Your task to perform on an android device: Open battery settings Image 0: 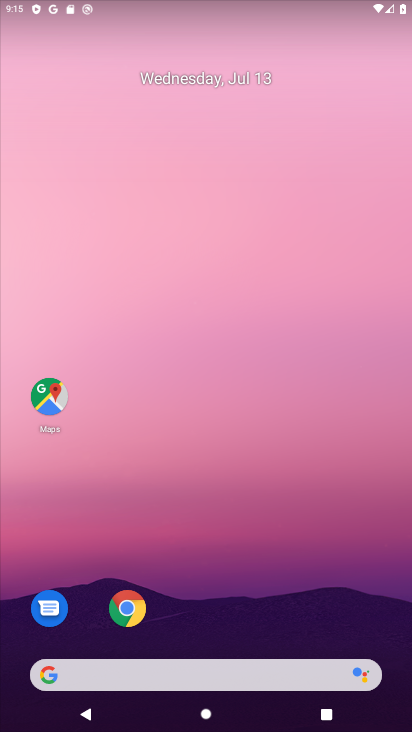
Step 0: drag from (348, 666) to (206, 14)
Your task to perform on an android device: Open battery settings Image 1: 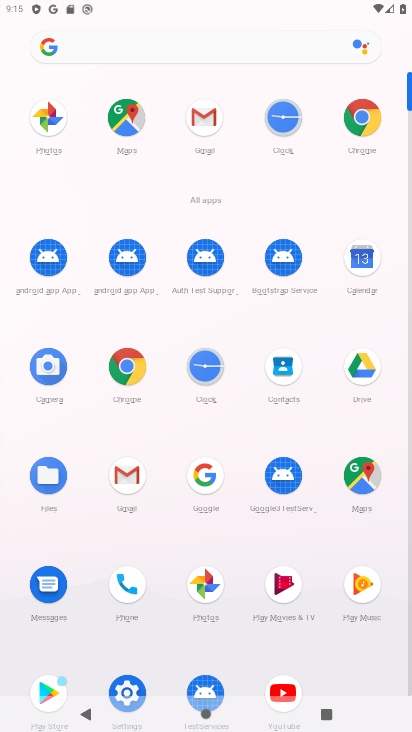
Step 1: click (122, 687)
Your task to perform on an android device: Open battery settings Image 2: 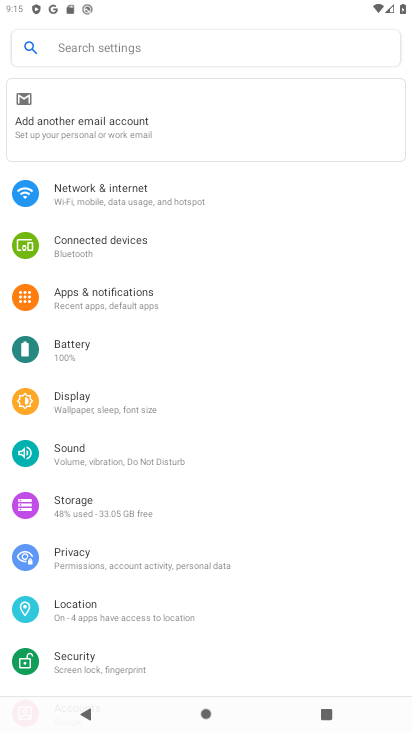
Step 2: click (88, 339)
Your task to perform on an android device: Open battery settings Image 3: 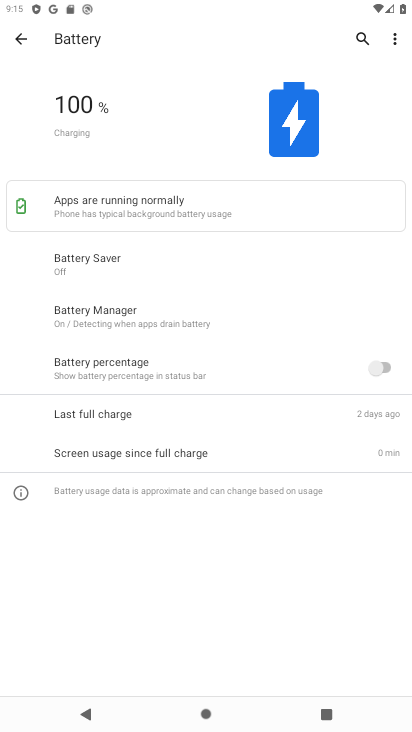
Step 3: task complete